Your task to perform on an android device: Open location settings Image 0: 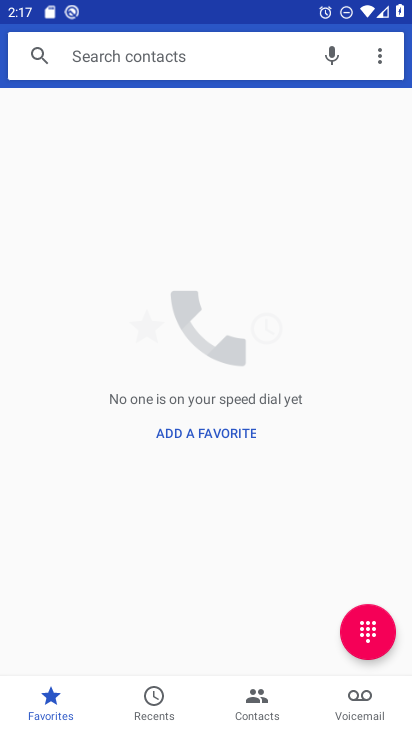
Step 0: press home button
Your task to perform on an android device: Open location settings Image 1: 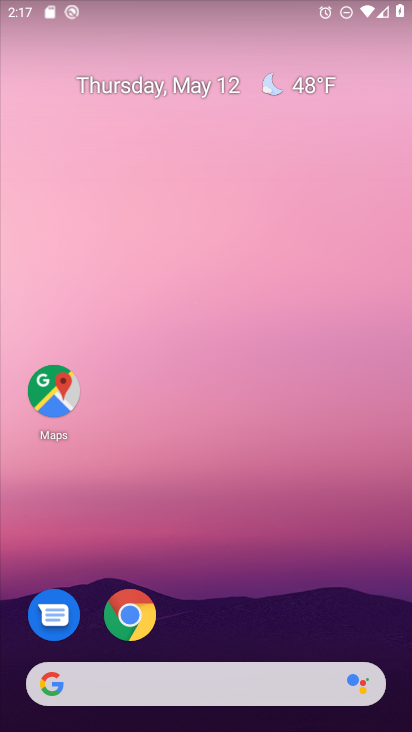
Step 1: drag from (299, 654) to (327, 0)
Your task to perform on an android device: Open location settings Image 2: 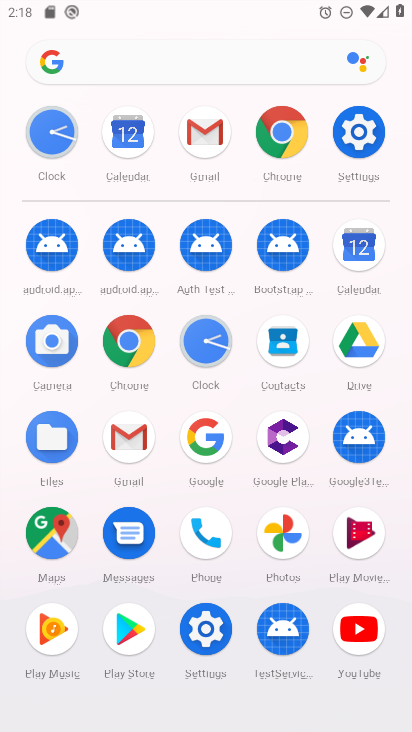
Step 2: click (367, 145)
Your task to perform on an android device: Open location settings Image 3: 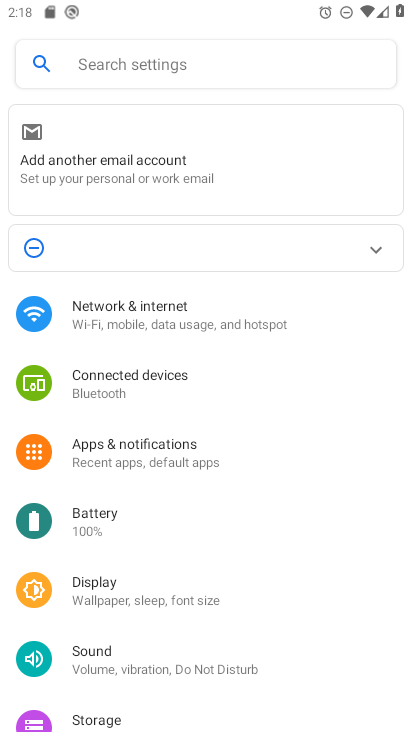
Step 3: drag from (142, 671) to (210, 308)
Your task to perform on an android device: Open location settings Image 4: 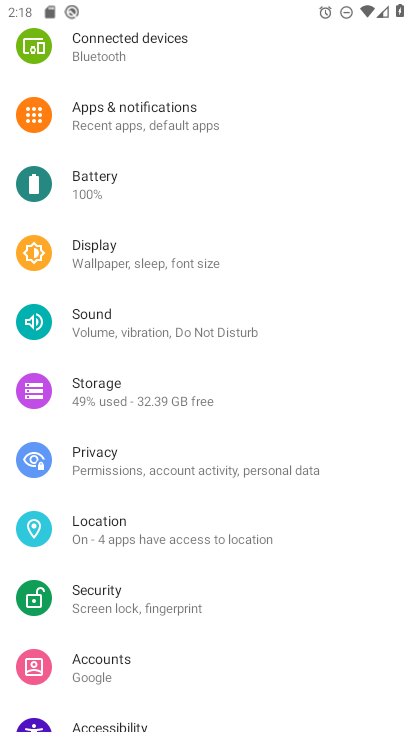
Step 4: click (197, 532)
Your task to perform on an android device: Open location settings Image 5: 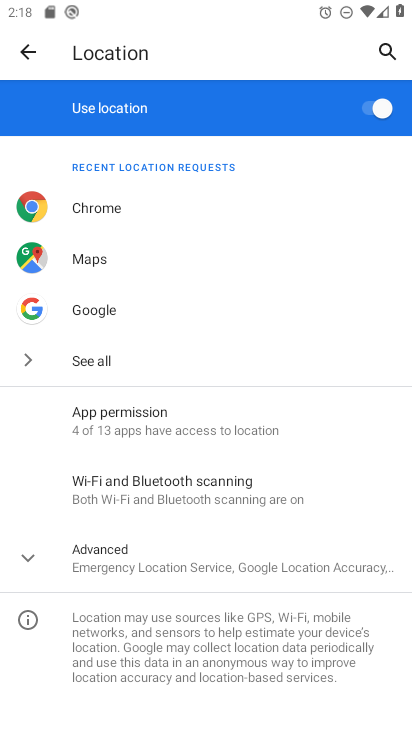
Step 5: task complete